Your task to perform on an android device: toggle data saver in the chrome app Image 0: 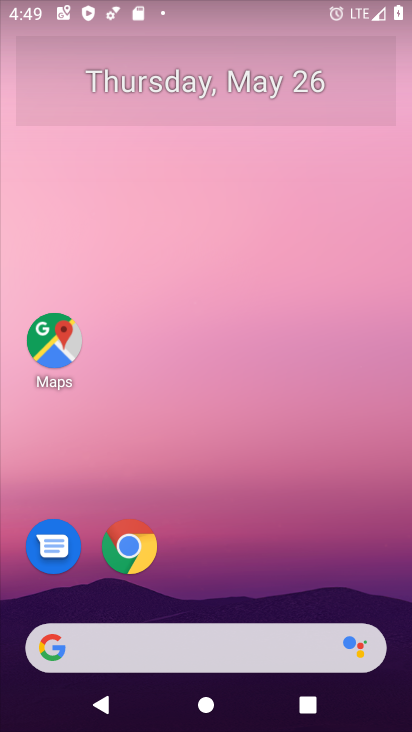
Step 0: click (132, 553)
Your task to perform on an android device: toggle data saver in the chrome app Image 1: 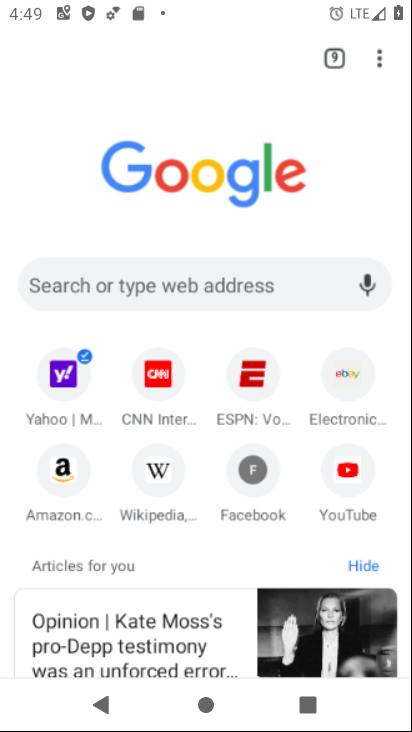
Step 1: drag from (376, 52) to (213, 488)
Your task to perform on an android device: toggle data saver in the chrome app Image 2: 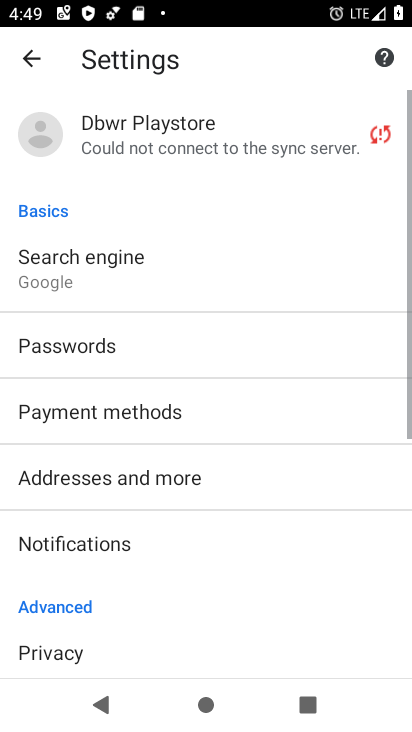
Step 2: drag from (148, 566) to (241, 136)
Your task to perform on an android device: toggle data saver in the chrome app Image 3: 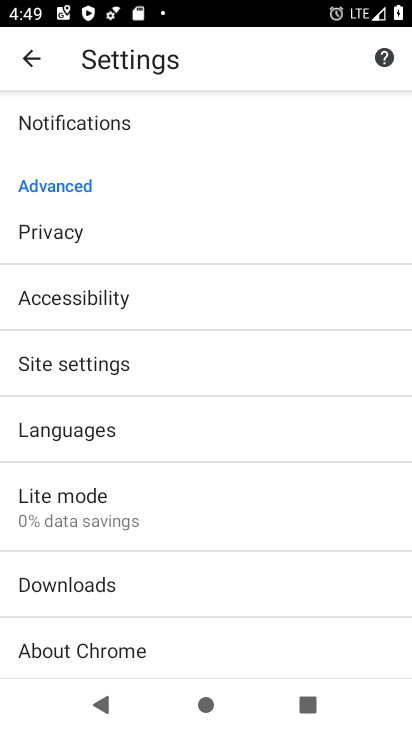
Step 3: click (130, 523)
Your task to perform on an android device: toggle data saver in the chrome app Image 4: 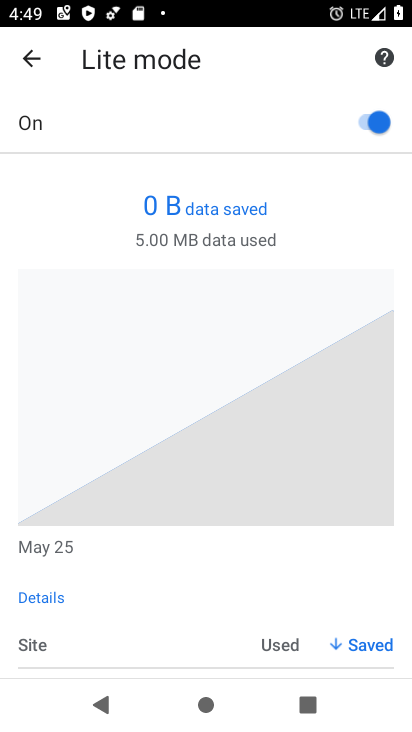
Step 4: click (367, 116)
Your task to perform on an android device: toggle data saver in the chrome app Image 5: 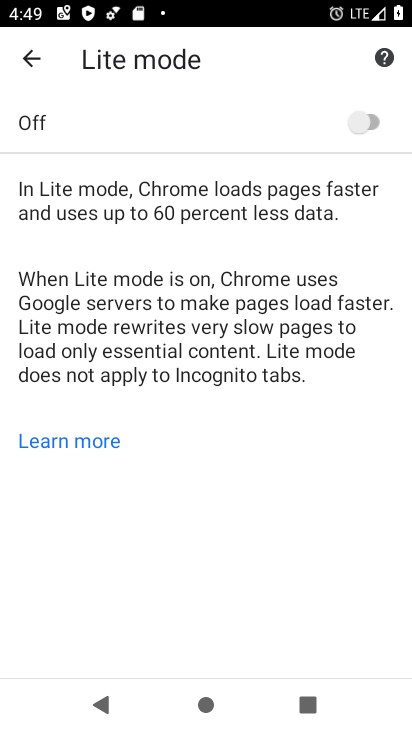
Step 5: task complete